Your task to perform on an android device: turn on showing notifications on the lock screen Image 0: 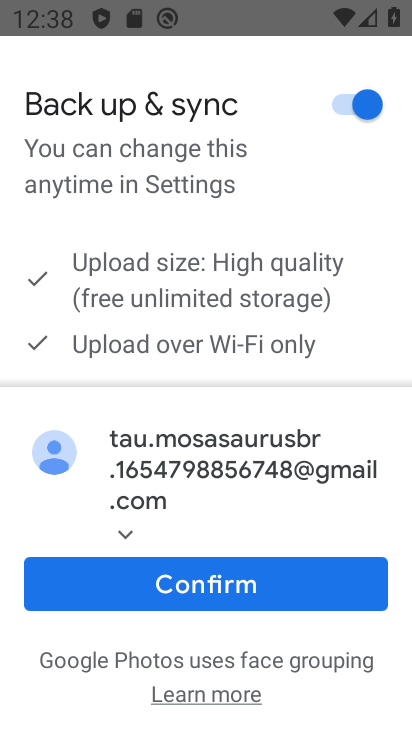
Step 0: press home button
Your task to perform on an android device: turn on showing notifications on the lock screen Image 1: 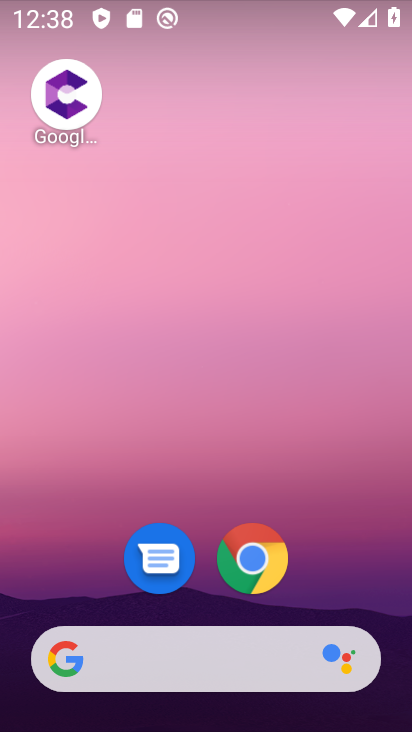
Step 1: drag from (335, 555) to (233, 115)
Your task to perform on an android device: turn on showing notifications on the lock screen Image 2: 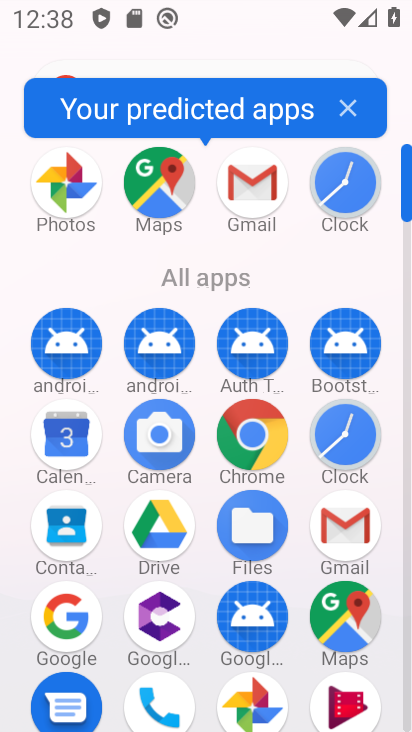
Step 2: drag from (224, 286) to (142, 10)
Your task to perform on an android device: turn on showing notifications on the lock screen Image 3: 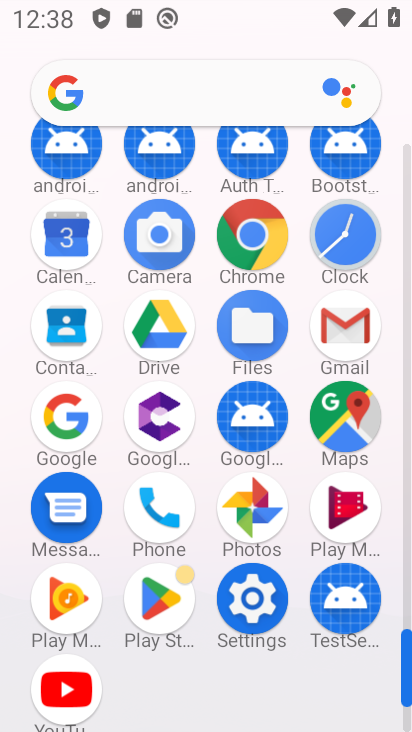
Step 3: click (244, 616)
Your task to perform on an android device: turn on showing notifications on the lock screen Image 4: 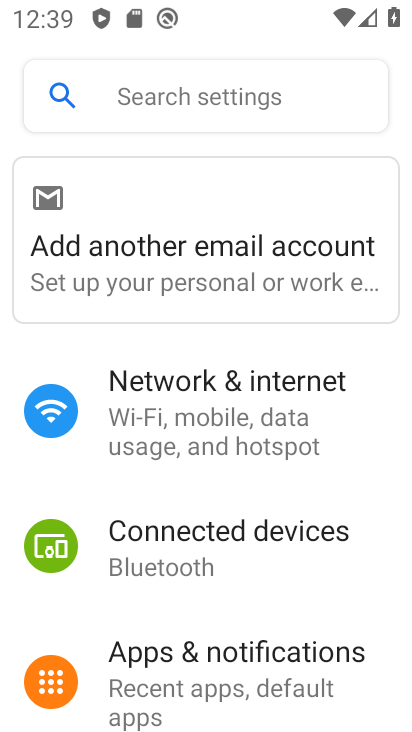
Step 4: click (321, 656)
Your task to perform on an android device: turn on showing notifications on the lock screen Image 5: 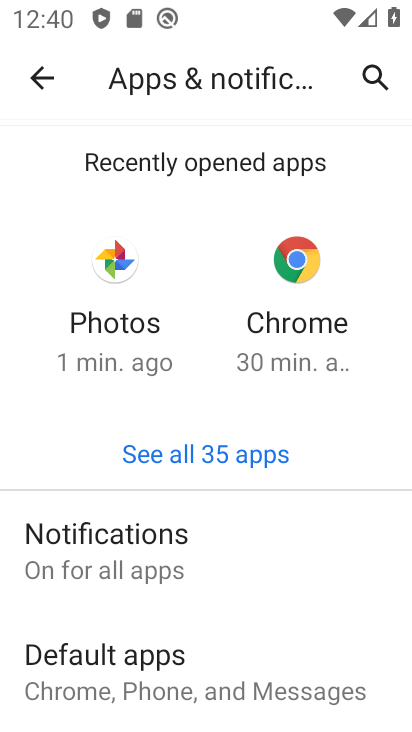
Step 5: click (191, 555)
Your task to perform on an android device: turn on showing notifications on the lock screen Image 6: 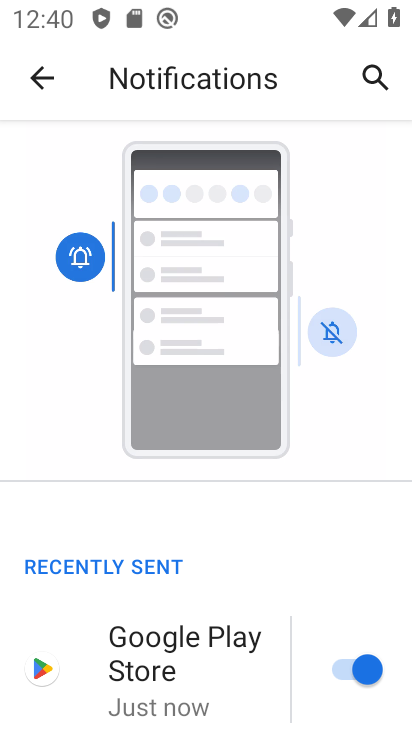
Step 6: drag from (283, 541) to (248, 161)
Your task to perform on an android device: turn on showing notifications on the lock screen Image 7: 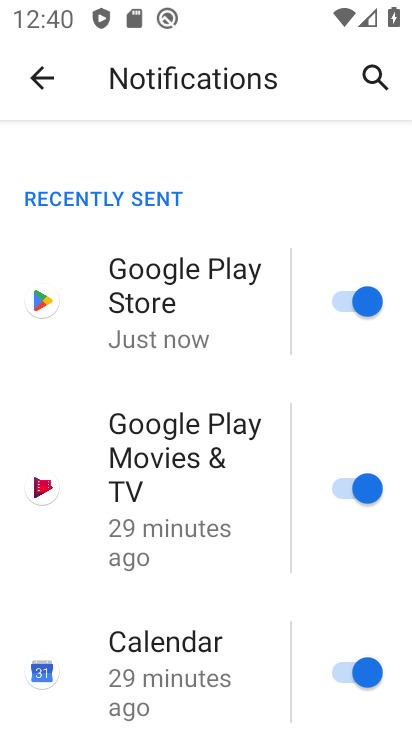
Step 7: drag from (319, 569) to (310, 175)
Your task to perform on an android device: turn on showing notifications on the lock screen Image 8: 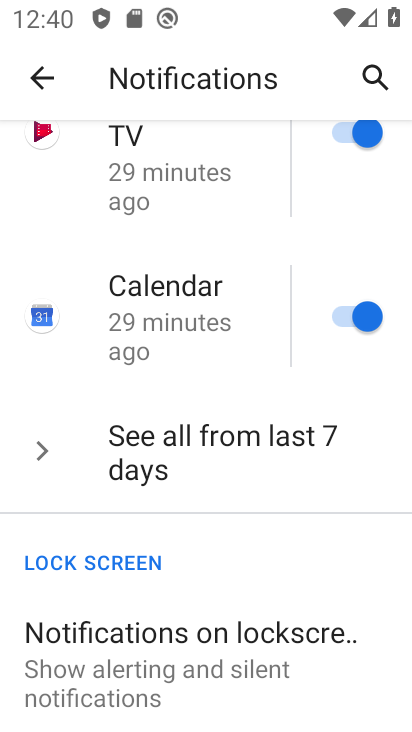
Step 8: click (242, 656)
Your task to perform on an android device: turn on showing notifications on the lock screen Image 9: 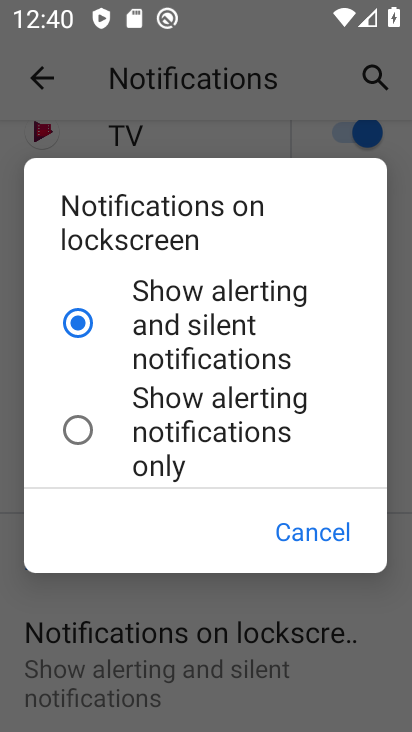
Step 9: task complete